Your task to perform on an android device: Go to CNN.com Image 0: 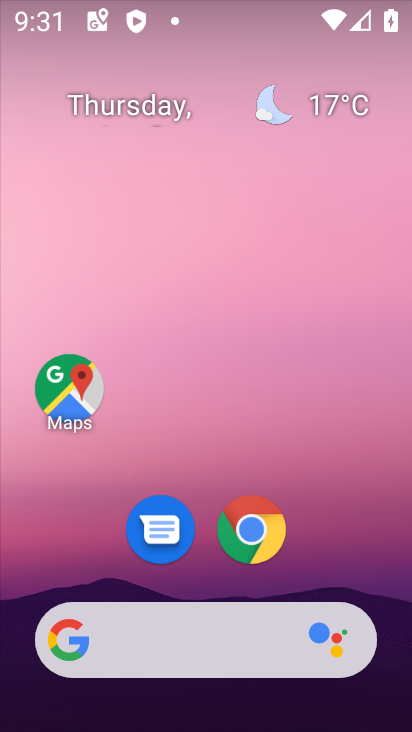
Step 0: click (178, 640)
Your task to perform on an android device: Go to CNN.com Image 1: 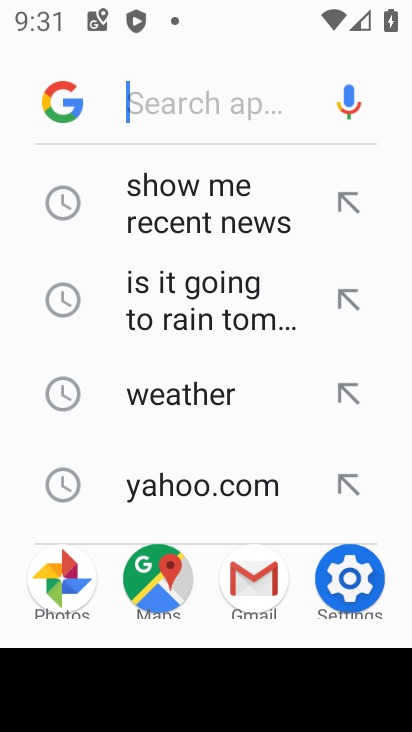
Step 1: type "CNN.com"
Your task to perform on an android device: Go to CNN.com Image 2: 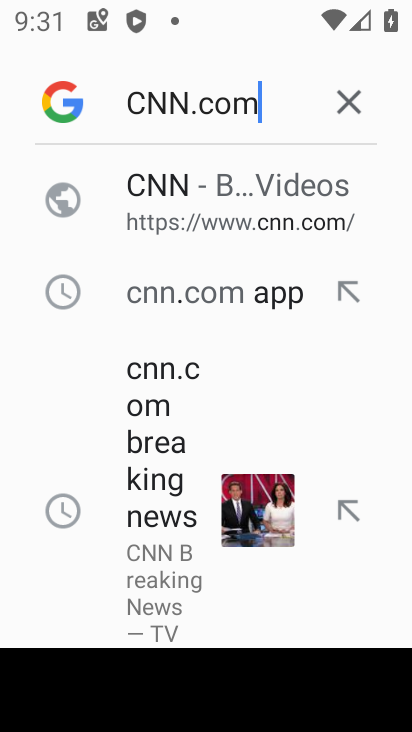
Step 2: click (285, 207)
Your task to perform on an android device: Go to CNN.com Image 3: 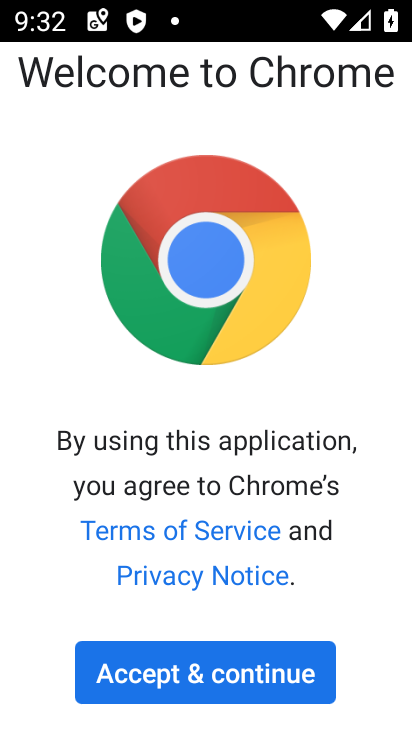
Step 3: click (268, 696)
Your task to perform on an android device: Go to CNN.com Image 4: 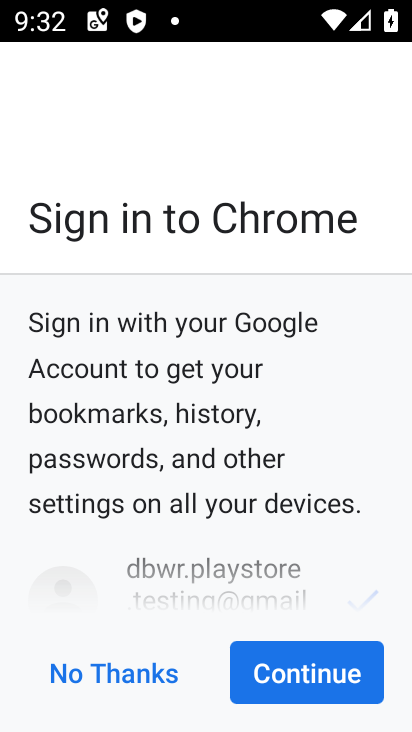
Step 4: click (321, 677)
Your task to perform on an android device: Go to CNN.com Image 5: 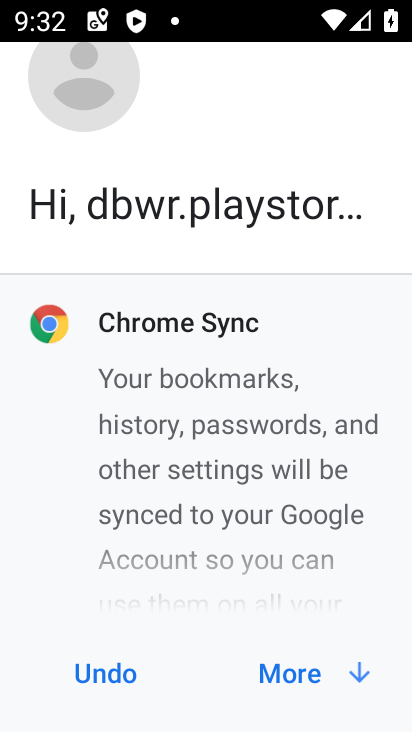
Step 5: click (312, 677)
Your task to perform on an android device: Go to CNN.com Image 6: 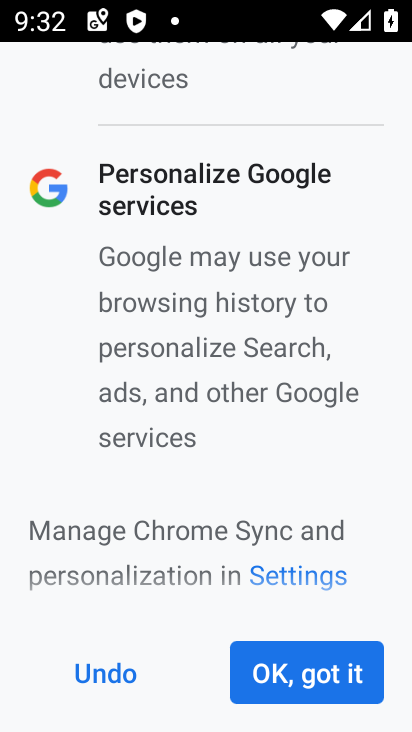
Step 6: click (312, 677)
Your task to perform on an android device: Go to CNN.com Image 7: 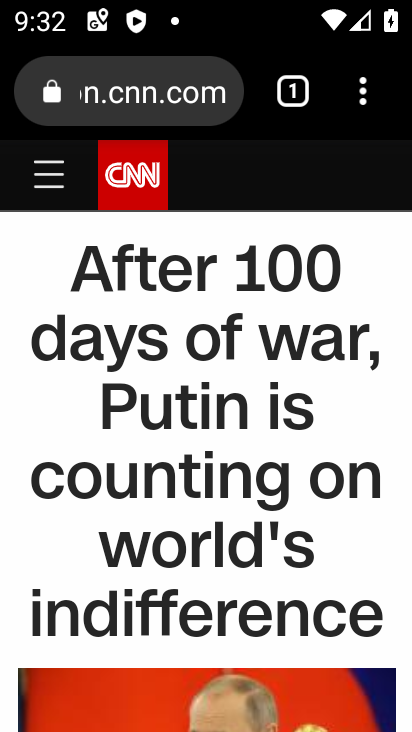
Step 7: task complete